Your task to perform on an android device: change timer sound Image 0: 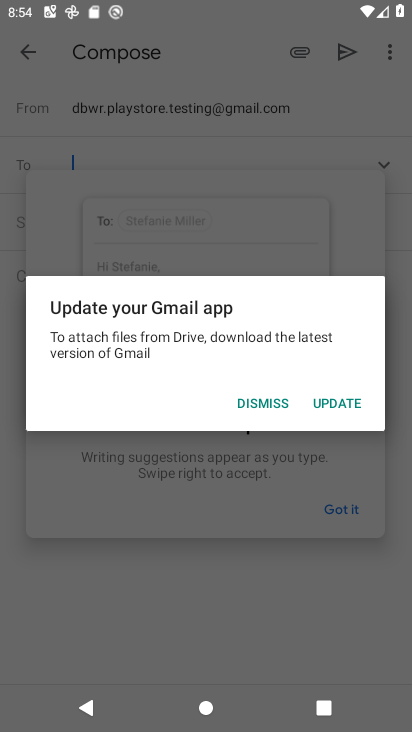
Step 0: press home button
Your task to perform on an android device: change timer sound Image 1: 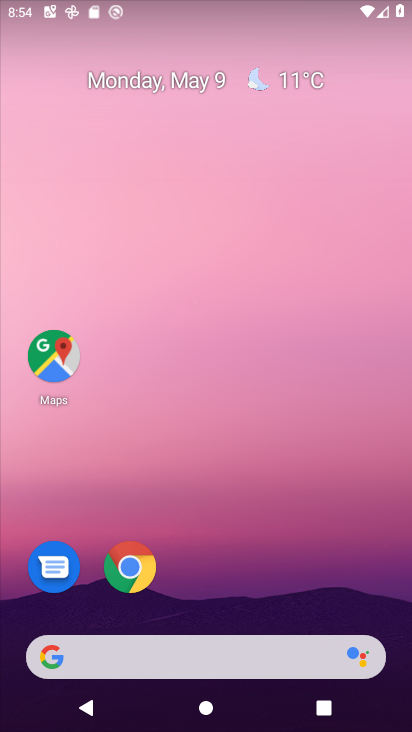
Step 1: drag from (335, 542) to (216, 35)
Your task to perform on an android device: change timer sound Image 2: 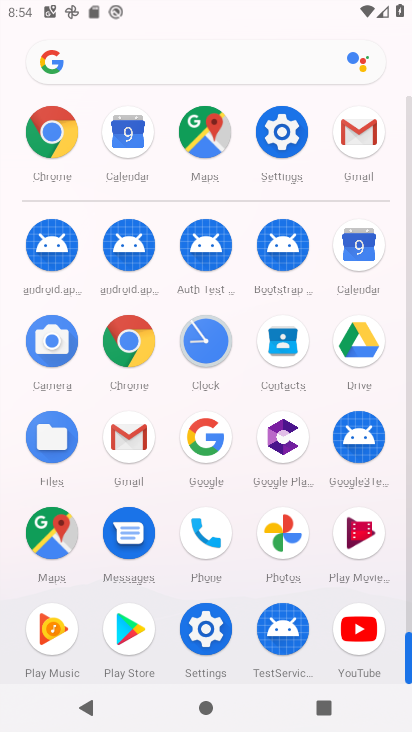
Step 2: click (213, 347)
Your task to perform on an android device: change timer sound Image 3: 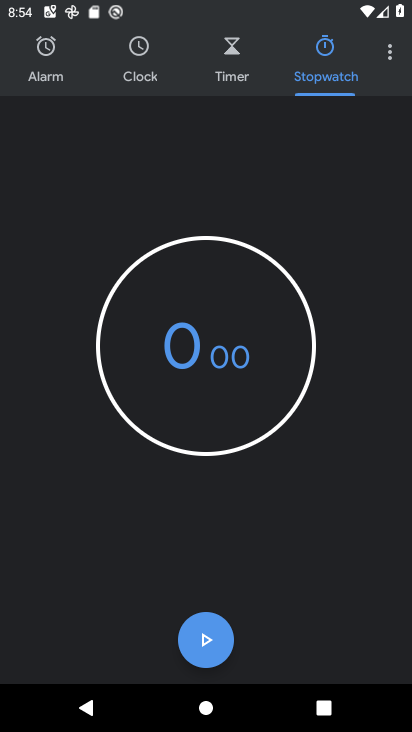
Step 3: click (385, 52)
Your task to perform on an android device: change timer sound Image 4: 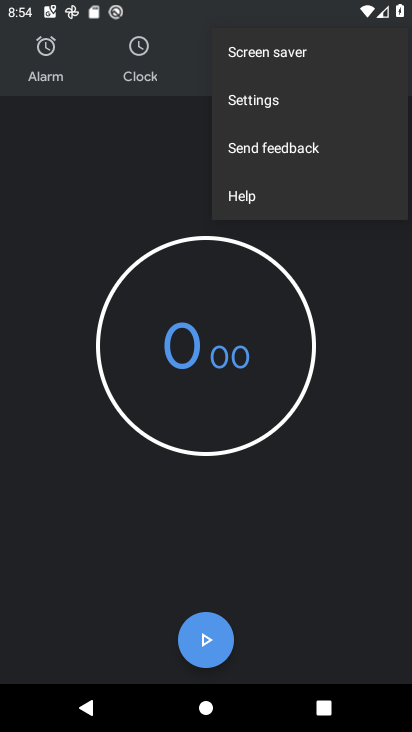
Step 4: click (329, 100)
Your task to perform on an android device: change timer sound Image 5: 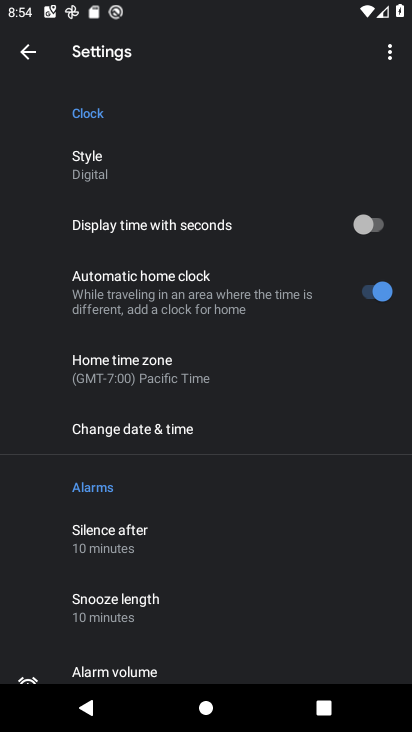
Step 5: drag from (269, 631) to (289, 22)
Your task to perform on an android device: change timer sound Image 6: 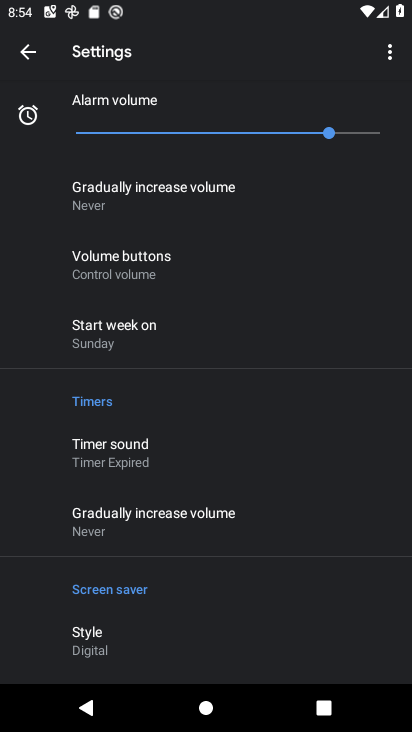
Step 6: click (167, 450)
Your task to perform on an android device: change timer sound Image 7: 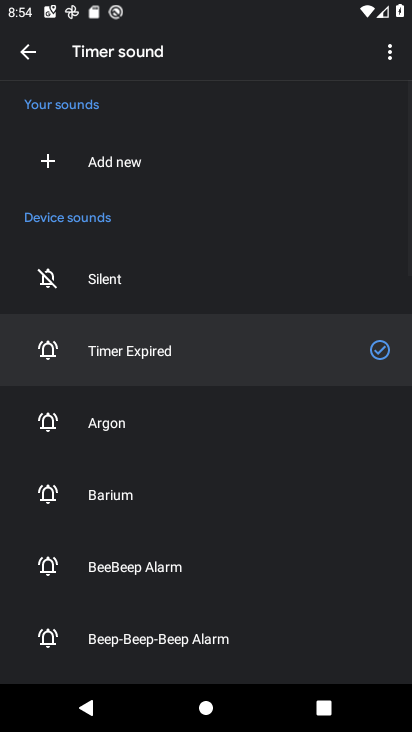
Step 7: click (154, 489)
Your task to perform on an android device: change timer sound Image 8: 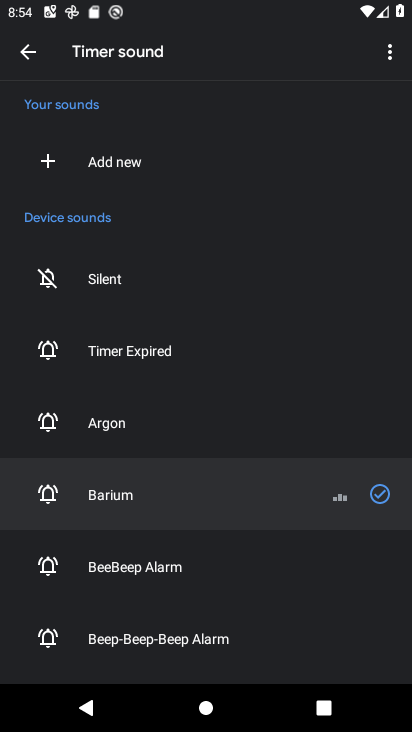
Step 8: task complete